Your task to perform on an android device: Set the phone to "Do not disturb". Image 0: 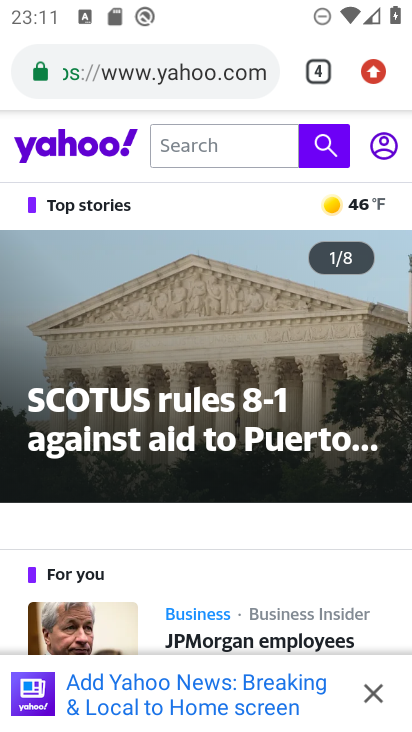
Step 0: press home button
Your task to perform on an android device: Set the phone to "Do not disturb". Image 1: 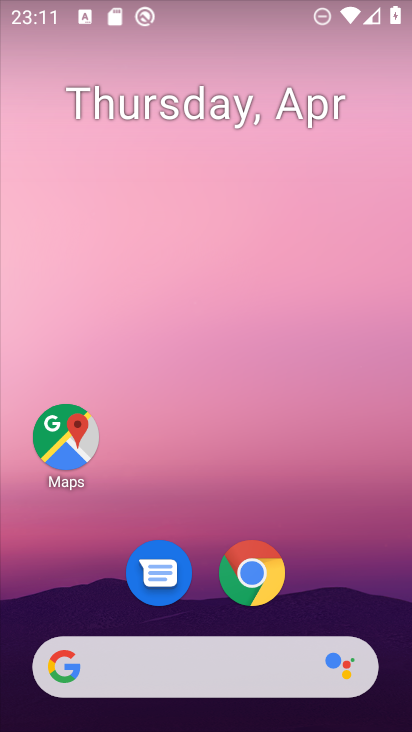
Step 1: drag from (319, 544) to (269, 156)
Your task to perform on an android device: Set the phone to "Do not disturb". Image 2: 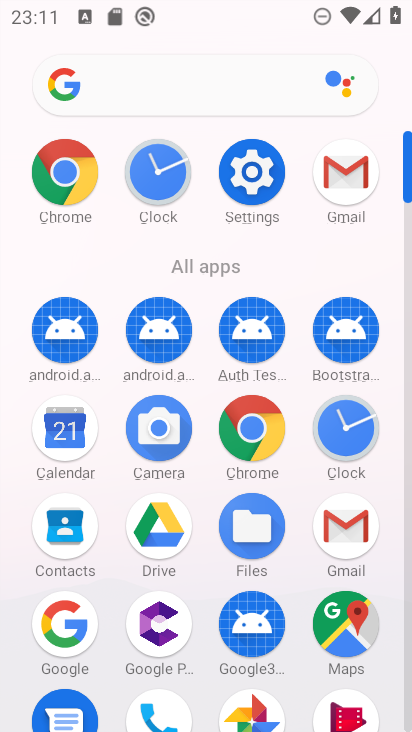
Step 2: click (260, 193)
Your task to perform on an android device: Set the phone to "Do not disturb". Image 3: 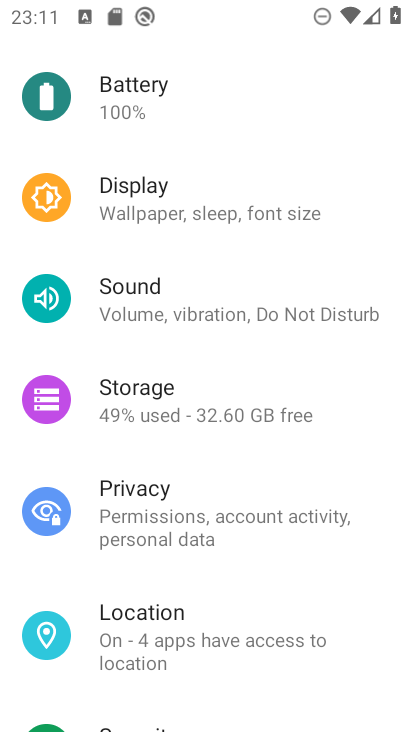
Step 3: click (238, 302)
Your task to perform on an android device: Set the phone to "Do not disturb". Image 4: 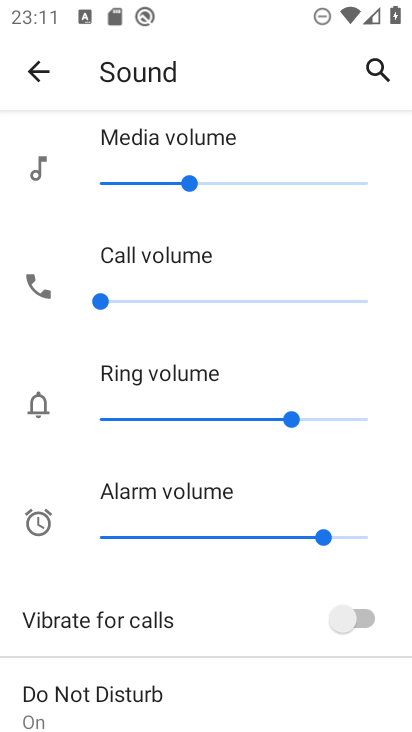
Step 4: task complete